Your task to perform on an android device: turn on translation in the chrome app Image 0: 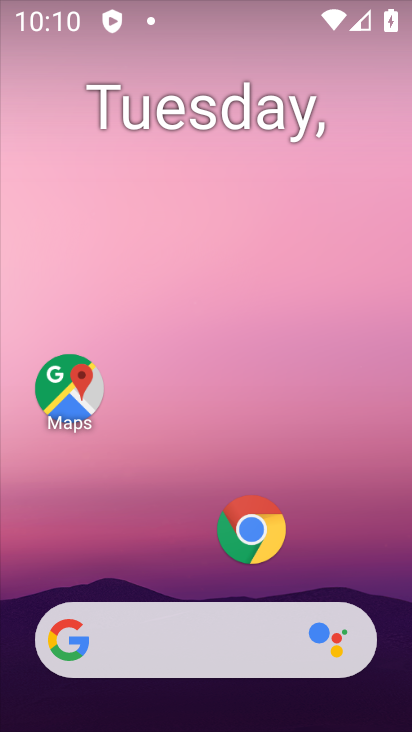
Step 0: drag from (212, 364) to (289, 144)
Your task to perform on an android device: turn on translation in the chrome app Image 1: 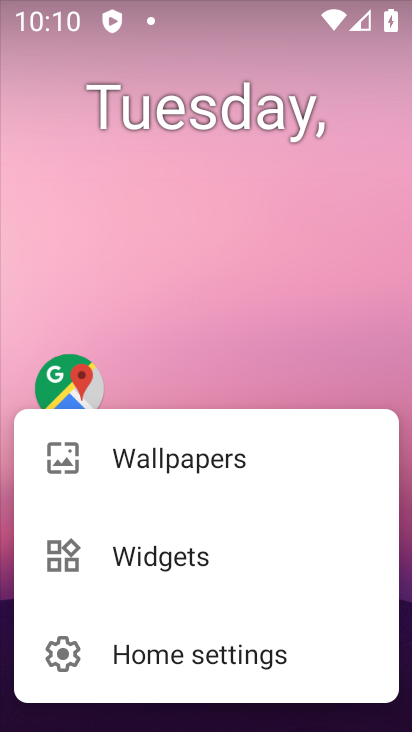
Step 1: click (196, 358)
Your task to perform on an android device: turn on translation in the chrome app Image 2: 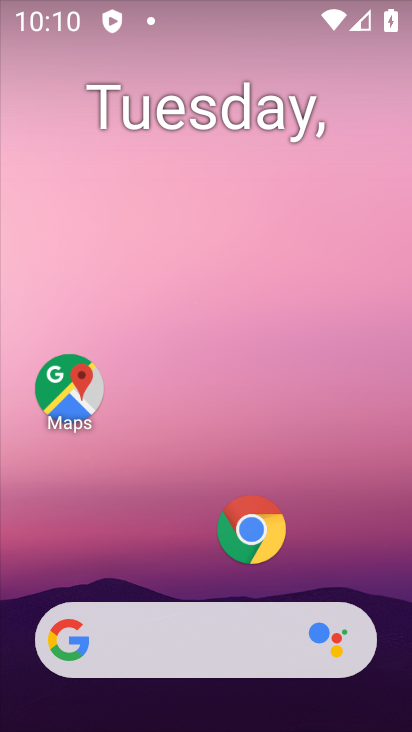
Step 2: drag from (133, 549) to (201, 132)
Your task to perform on an android device: turn on translation in the chrome app Image 3: 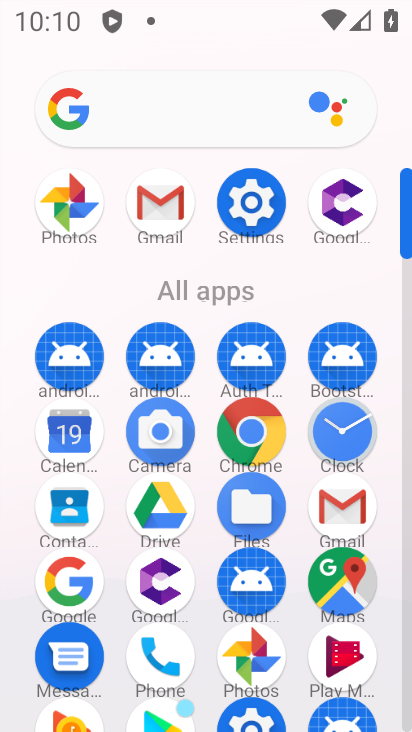
Step 3: click (250, 430)
Your task to perform on an android device: turn on translation in the chrome app Image 4: 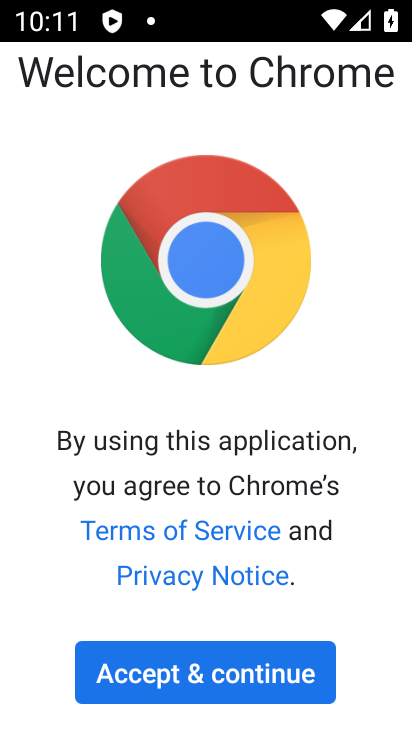
Step 4: click (274, 655)
Your task to perform on an android device: turn on translation in the chrome app Image 5: 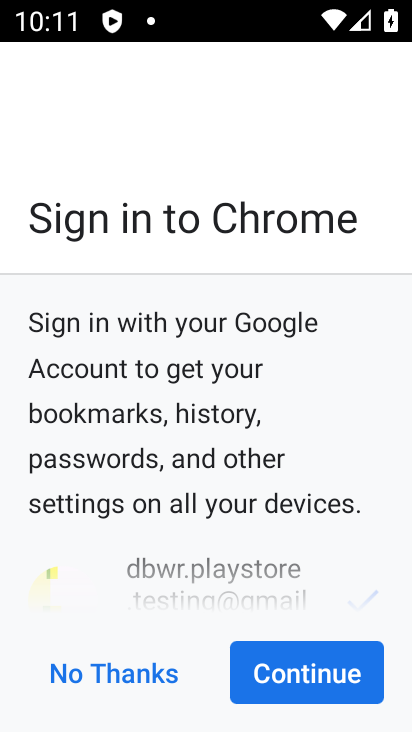
Step 5: click (314, 654)
Your task to perform on an android device: turn on translation in the chrome app Image 6: 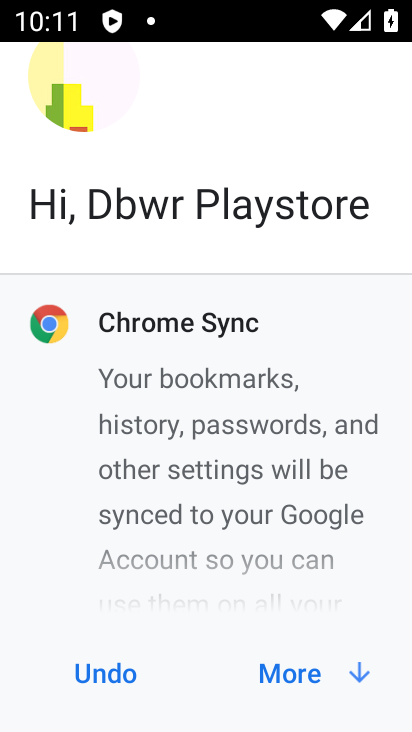
Step 6: click (304, 671)
Your task to perform on an android device: turn on translation in the chrome app Image 7: 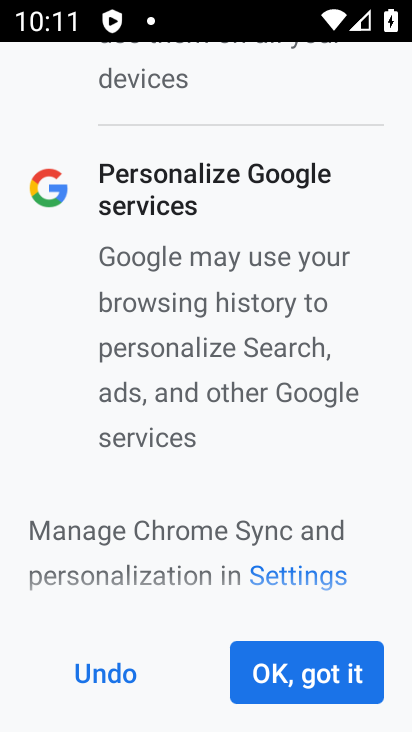
Step 7: click (322, 664)
Your task to perform on an android device: turn on translation in the chrome app Image 8: 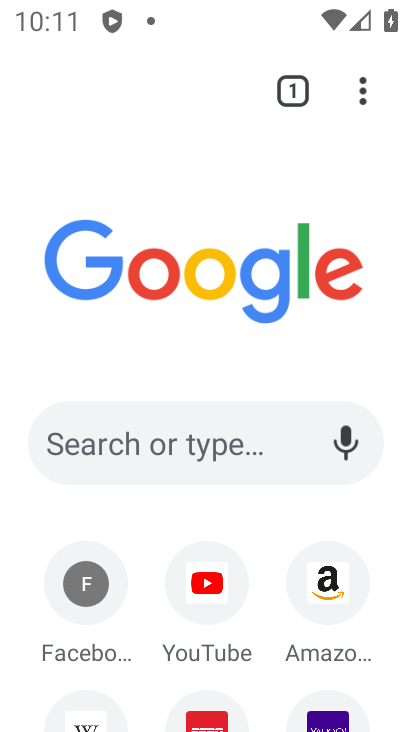
Step 8: click (371, 74)
Your task to perform on an android device: turn on translation in the chrome app Image 9: 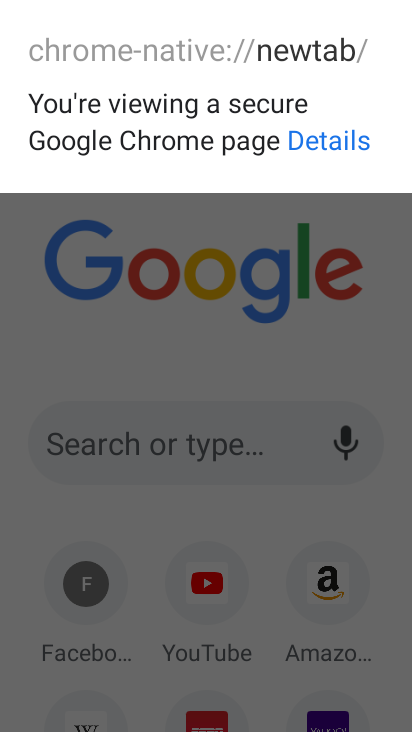
Step 9: click (254, 374)
Your task to perform on an android device: turn on translation in the chrome app Image 10: 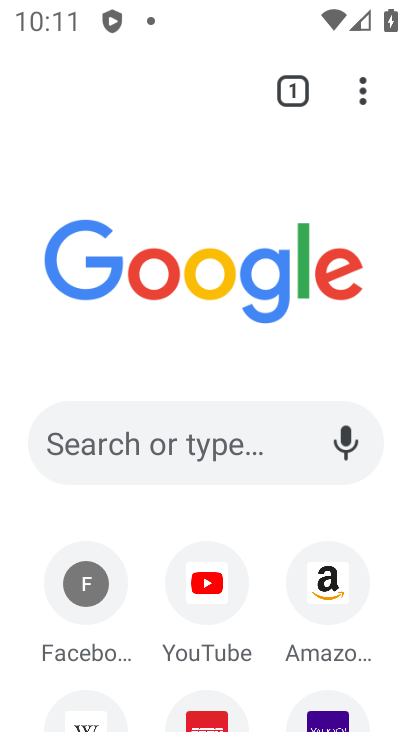
Step 10: click (364, 91)
Your task to perform on an android device: turn on translation in the chrome app Image 11: 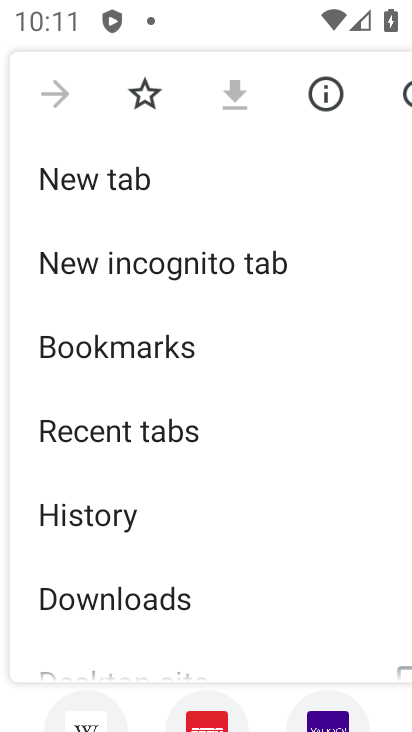
Step 11: drag from (125, 593) to (142, 245)
Your task to perform on an android device: turn on translation in the chrome app Image 12: 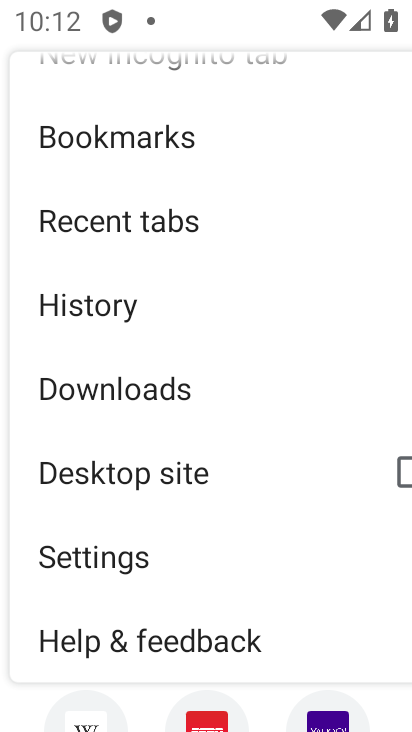
Step 12: click (110, 552)
Your task to perform on an android device: turn on translation in the chrome app Image 13: 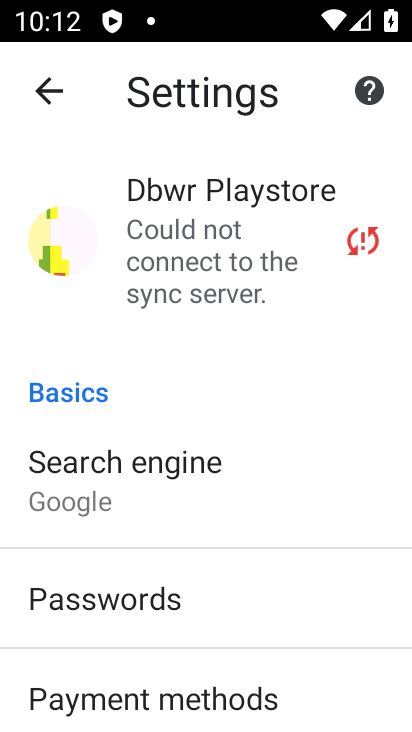
Step 13: drag from (175, 613) to (236, 105)
Your task to perform on an android device: turn on translation in the chrome app Image 14: 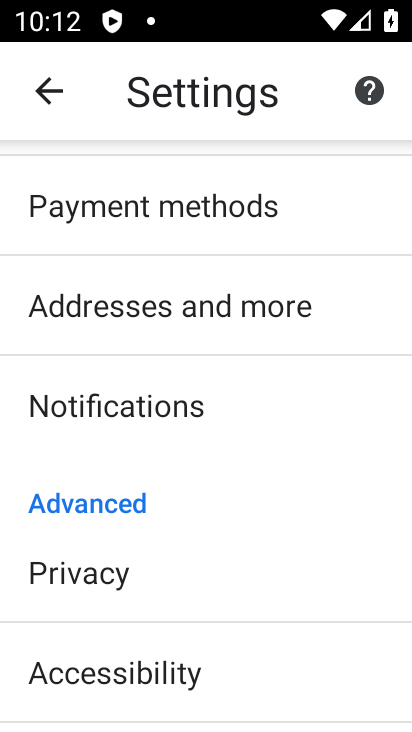
Step 14: drag from (240, 602) to (243, 291)
Your task to perform on an android device: turn on translation in the chrome app Image 15: 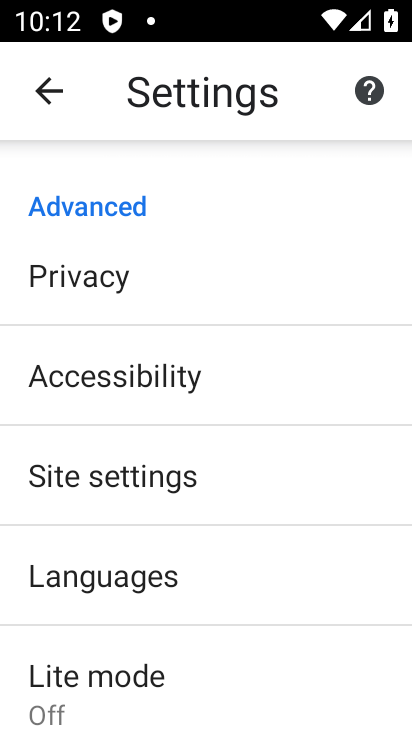
Step 15: drag from (193, 600) to (224, 359)
Your task to perform on an android device: turn on translation in the chrome app Image 16: 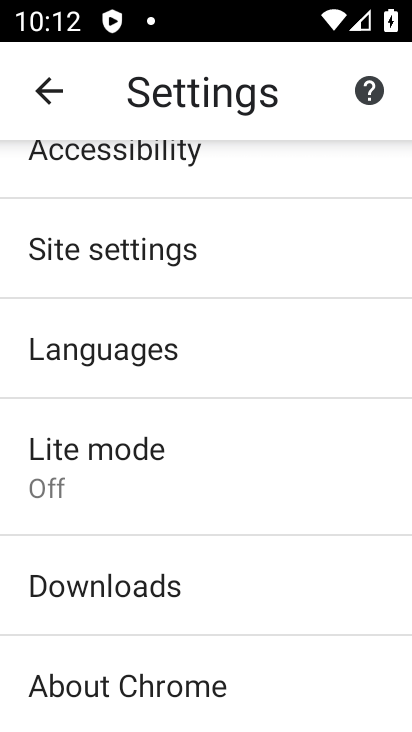
Step 16: drag from (167, 609) to (175, 451)
Your task to perform on an android device: turn on translation in the chrome app Image 17: 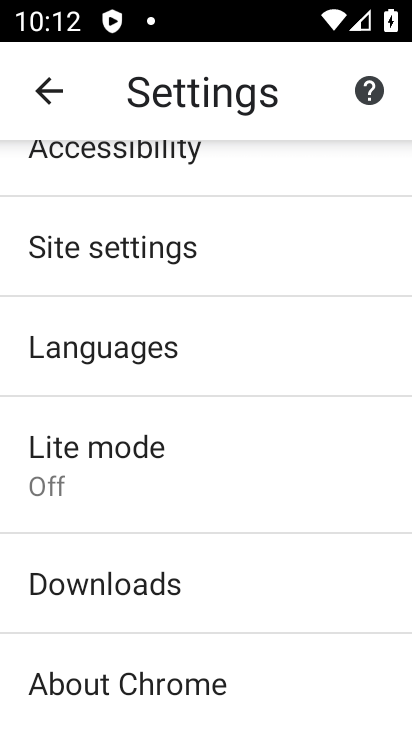
Step 17: drag from (174, 656) to (221, 326)
Your task to perform on an android device: turn on translation in the chrome app Image 18: 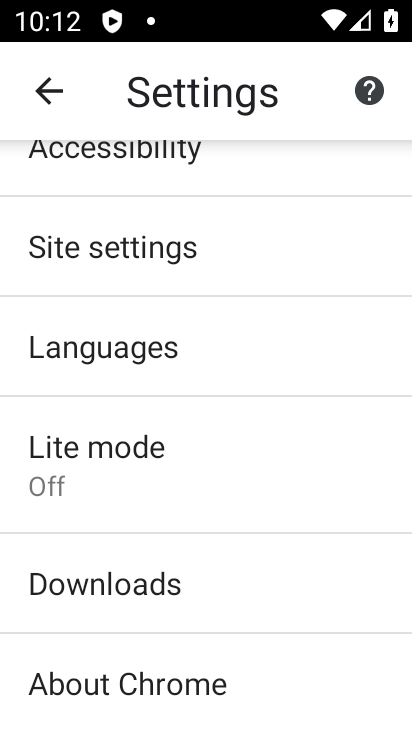
Step 18: click (118, 356)
Your task to perform on an android device: turn on translation in the chrome app Image 19: 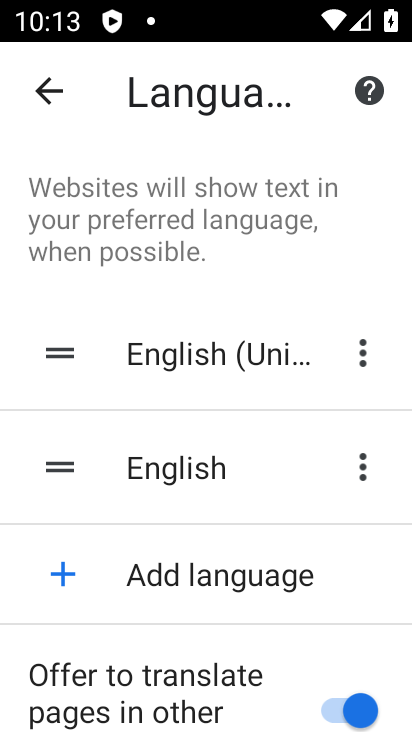
Step 19: task complete